Your task to perform on an android device: When is my next appointment? Image 0: 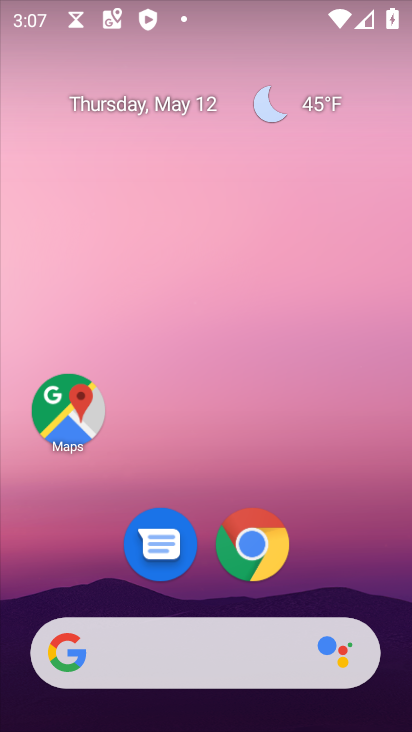
Step 0: drag from (341, 595) to (293, 16)
Your task to perform on an android device: When is my next appointment? Image 1: 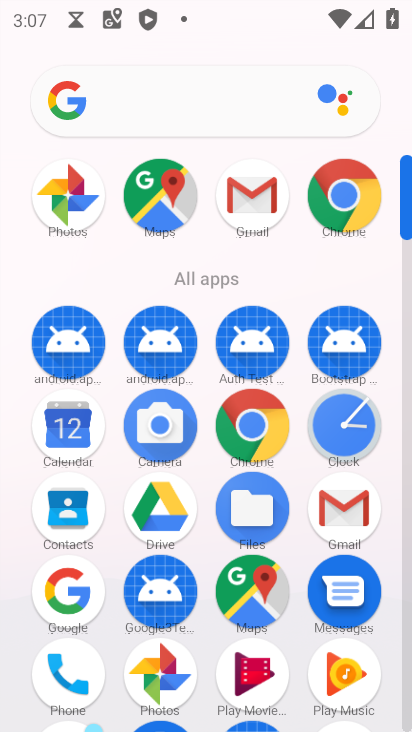
Step 1: click (66, 437)
Your task to perform on an android device: When is my next appointment? Image 2: 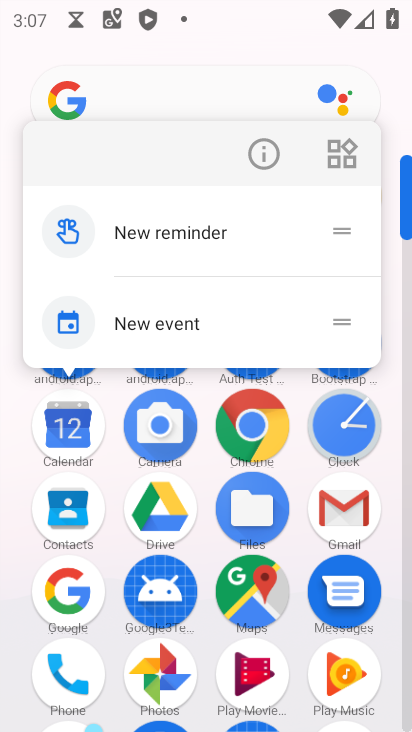
Step 2: click (46, 416)
Your task to perform on an android device: When is my next appointment? Image 3: 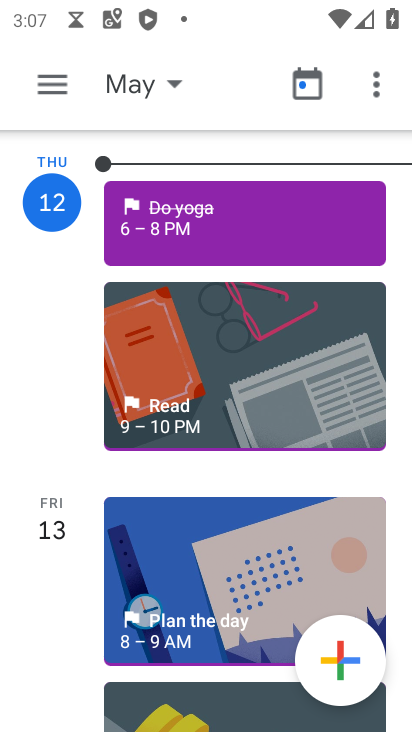
Step 3: click (103, 66)
Your task to perform on an android device: When is my next appointment? Image 4: 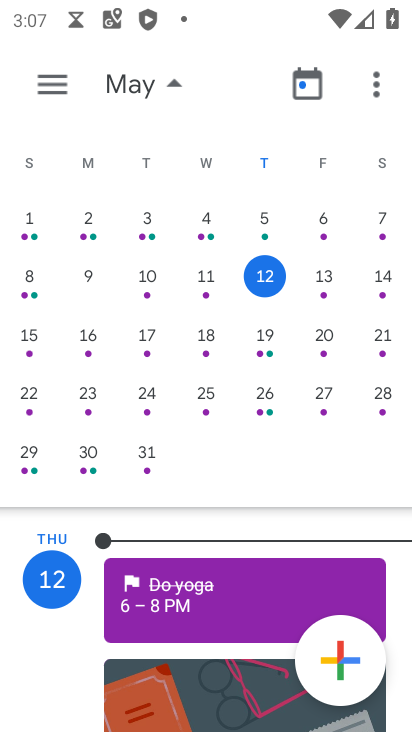
Step 4: click (267, 274)
Your task to perform on an android device: When is my next appointment? Image 5: 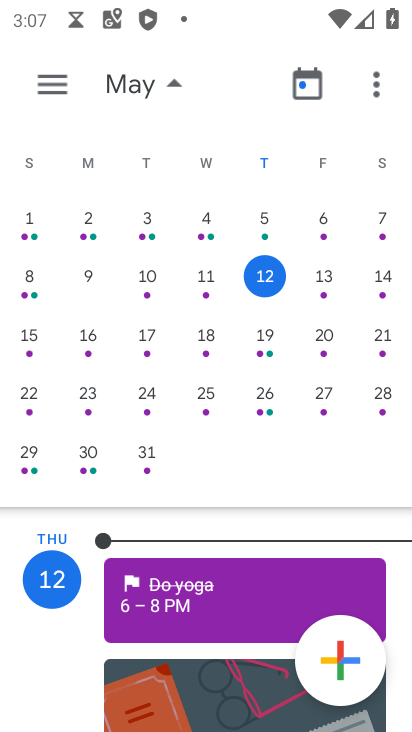
Step 5: task complete